Your task to perform on an android device: change the clock display to show seconds Image 0: 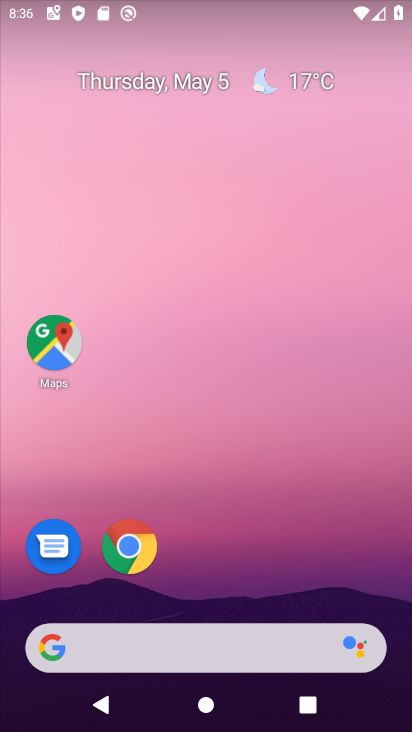
Step 0: drag from (220, 657) to (376, 69)
Your task to perform on an android device: change the clock display to show seconds Image 1: 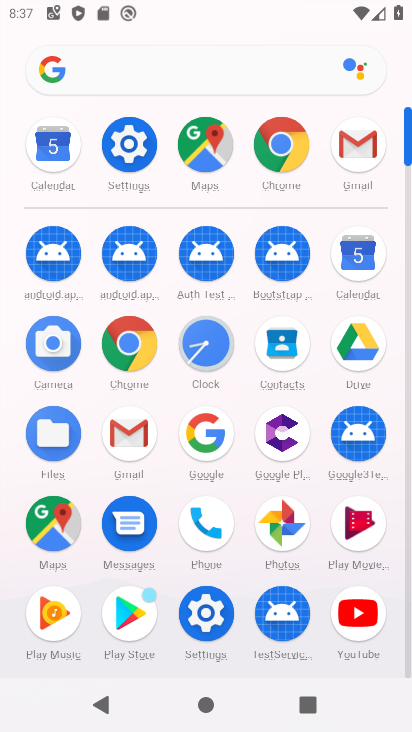
Step 1: click (209, 351)
Your task to perform on an android device: change the clock display to show seconds Image 2: 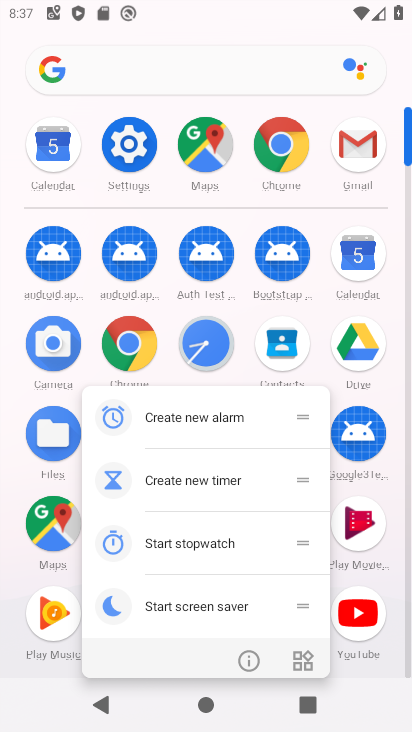
Step 2: click (201, 352)
Your task to perform on an android device: change the clock display to show seconds Image 3: 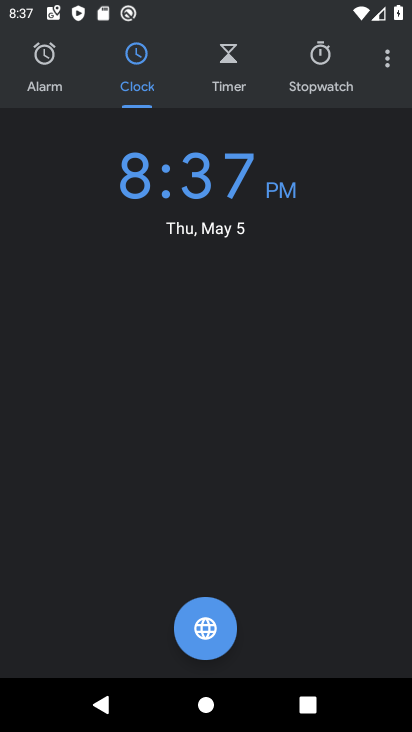
Step 3: click (389, 64)
Your task to perform on an android device: change the clock display to show seconds Image 4: 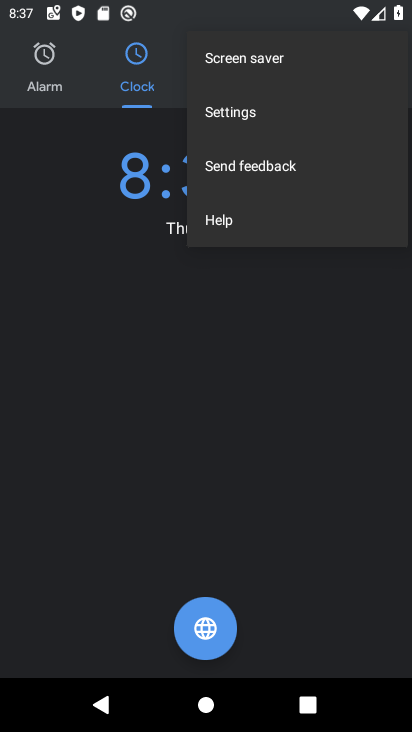
Step 4: click (262, 117)
Your task to perform on an android device: change the clock display to show seconds Image 5: 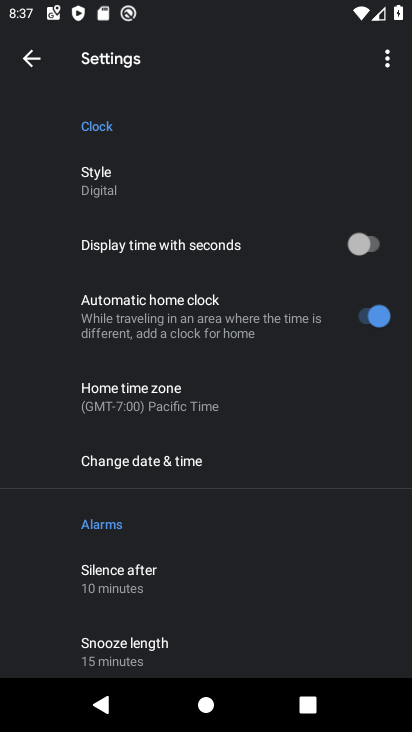
Step 5: click (373, 239)
Your task to perform on an android device: change the clock display to show seconds Image 6: 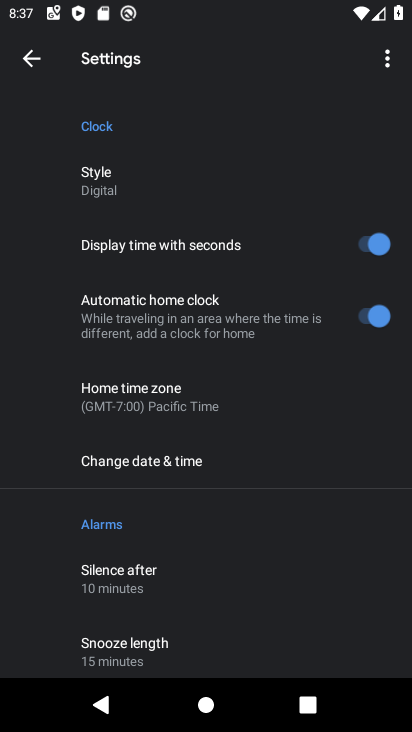
Step 6: task complete